Your task to perform on an android device: turn vacation reply on in the gmail app Image 0: 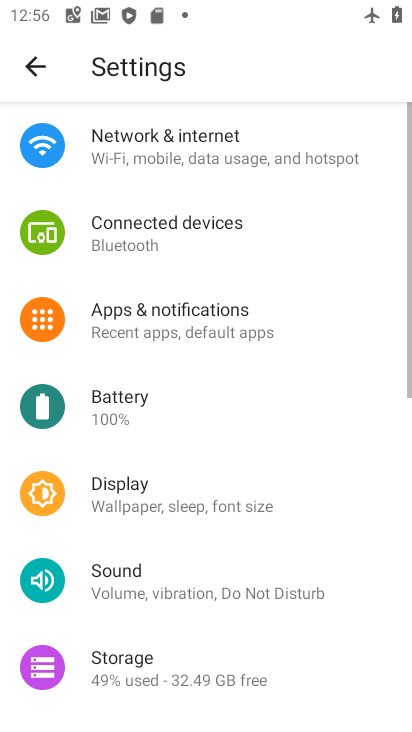
Step 0: press home button
Your task to perform on an android device: turn vacation reply on in the gmail app Image 1: 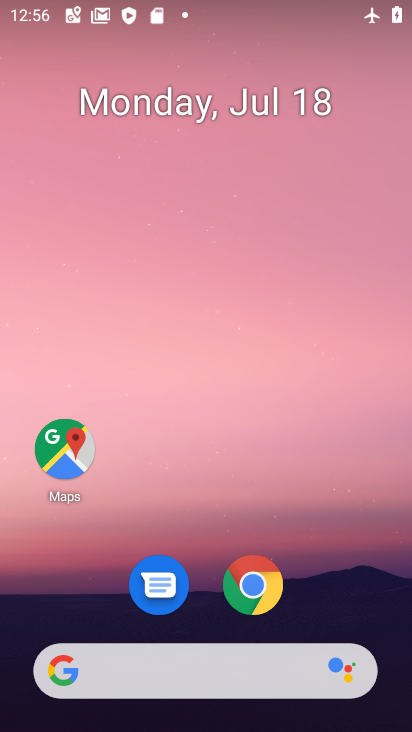
Step 1: drag from (218, 667) to (240, 215)
Your task to perform on an android device: turn vacation reply on in the gmail app Image 2: 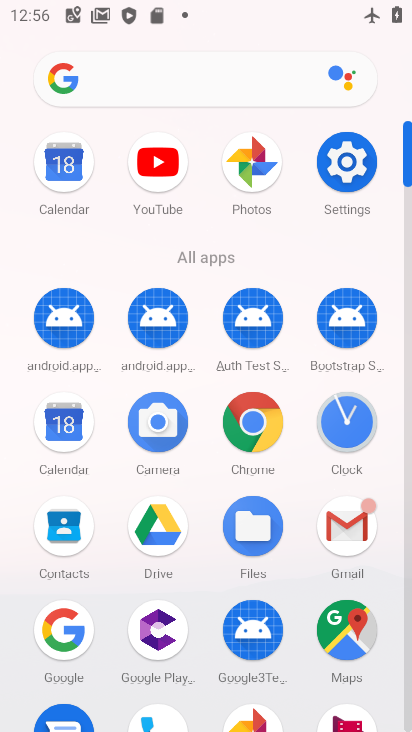
Step 2: click (343, 533)
Your task to perform on an android device: turn vacation reply on in the gmail app Image 3: 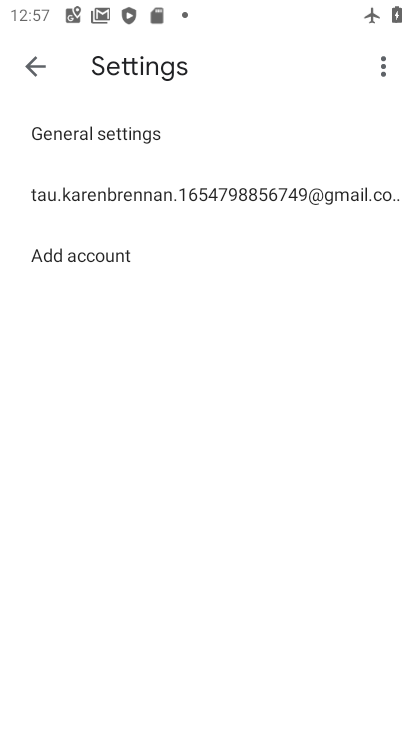
Step 3: click (205, 182)
Your task to perform on an android device: turn vacation reply on in the gmail app Image 4: 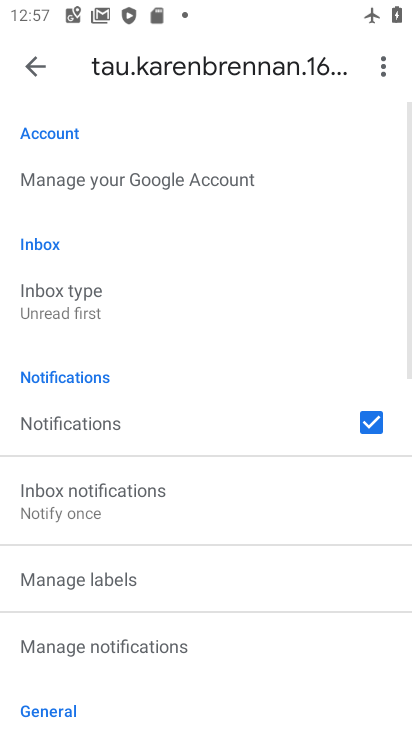
Step 4: drag from (233, 657) to (224, 183)
Your task to perform on an android device: turn vacation reply on in the gmail app Image 5: 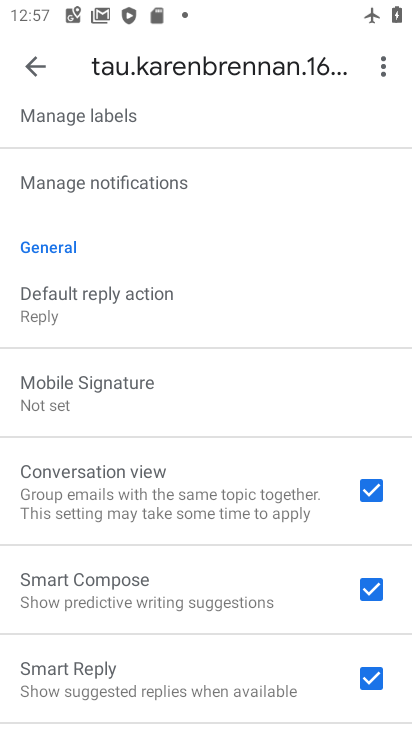
Step 5: drag from (224, 674) to (188, 253)
Your task to perform on an android device: turn vacation reply on in the gmail app Image 6: 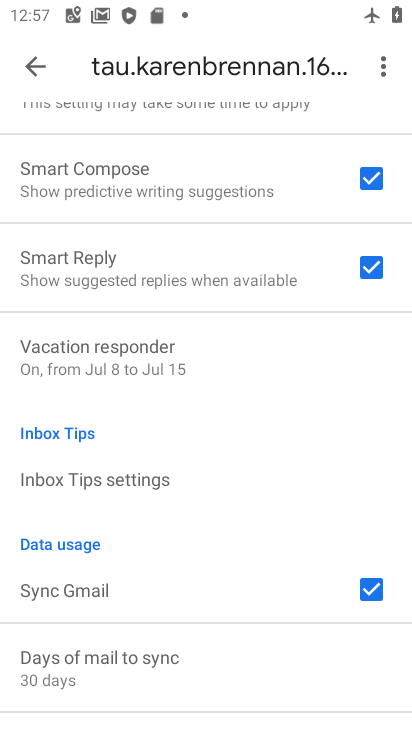
Step 6: click (118, 364)
Your task to perform on an android device: turn vacation reply on in the gmail app Image 7: 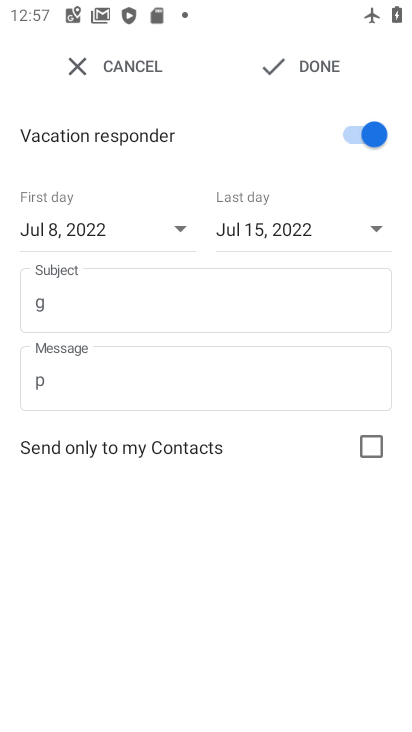
Step 7: task complete